Your task to perform on an android device: turn off smart reply in the gmail app Image 0: 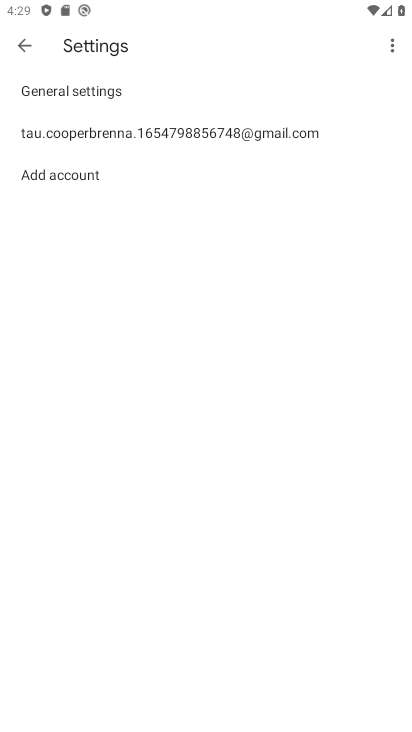
Step 0: press home button
Your task to perform on an android device: turn off smart reply in the gmail app Image 1: 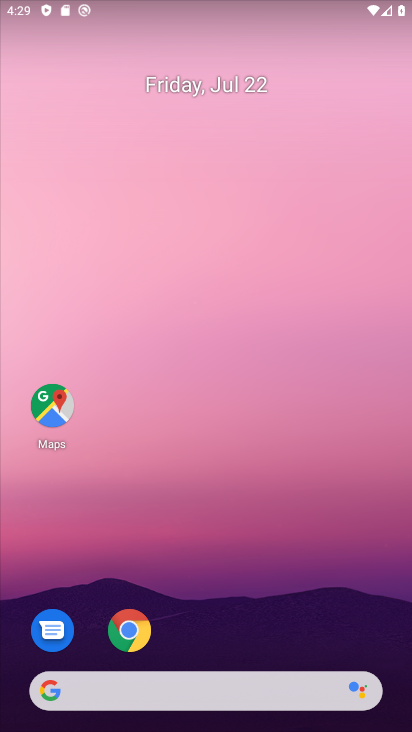
Step 1: drag from (167, 623) to (195, 120)
Your task to perform on an android device: turn off smart reply in the gmail app Image 2: 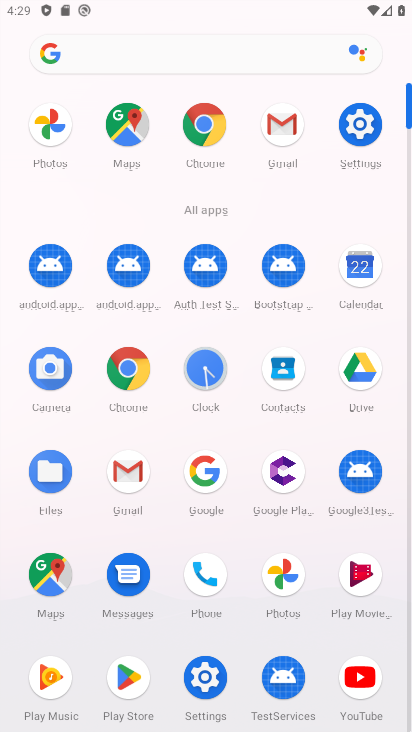
Step 2: click (269, 130)
Your task to perform on an android device: turn off smart reply in the gmail app Image 3: 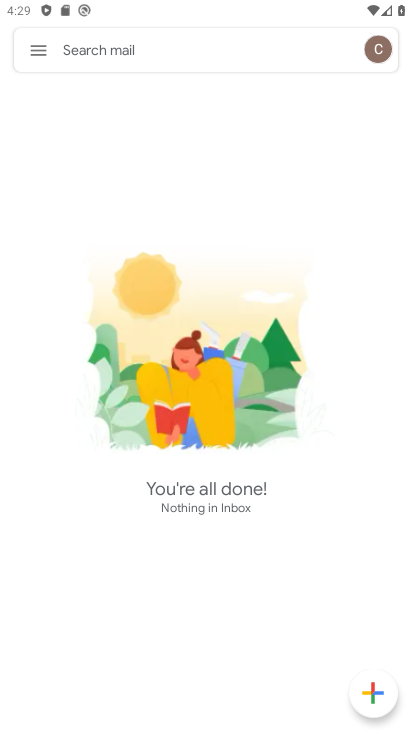
Step 3: press home button
Your task to perform on an android device: turn off smart reply in the gmail app Image 4: 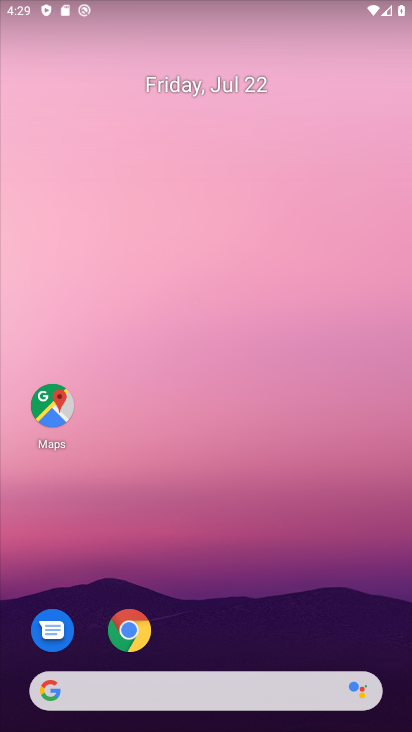
Step 4: drag from (187, 591) to (25, 28)
Your task to perform on an android device: turn off smart reply in the gmail app Image 5: 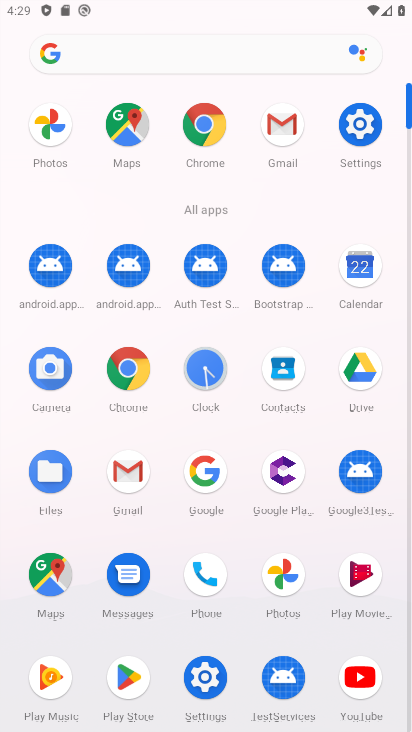
Step 5: click (277, 122)
Your task to perform on an android device: turn off smart reply in the gmail app Image 6: 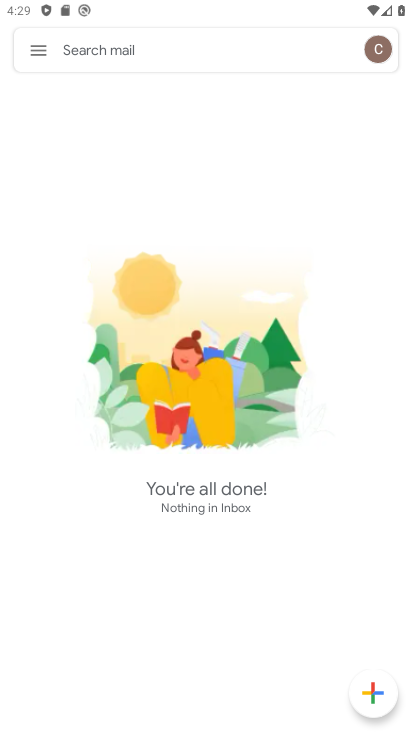
Step 6: click (33, 45)
Your task to perform on an android device: turn off smart reply in the gmail app Image 7: 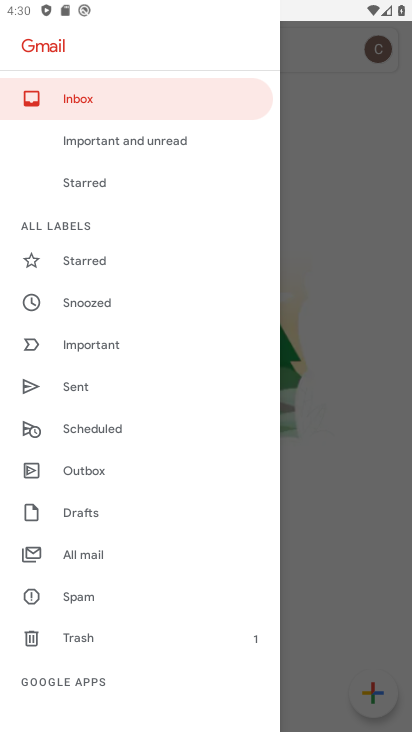
Step 7: drag from (79, 640) to (52, 431)
Your task to perform on an android device: turn off smart reply in the gmail app Image 8: 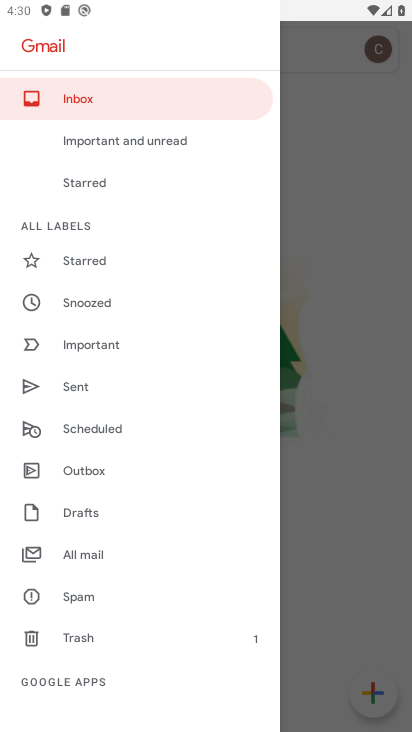
Step 8: drag from (161, 614) to (161, 264)
Your task to perform on an android device: turn off smart reply in the gmail app Image 9: 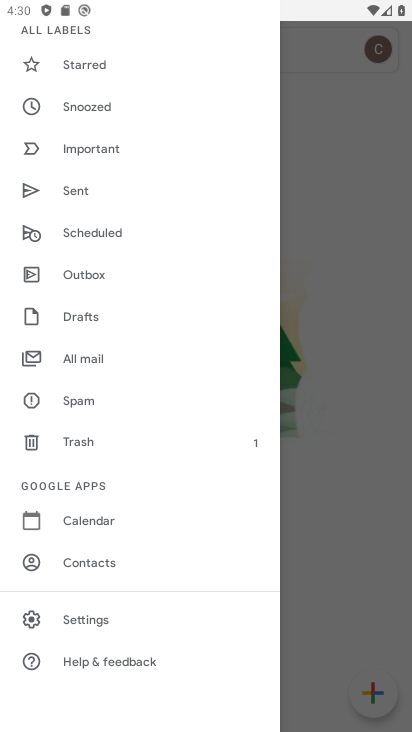
Step 9: click (90, 617)
Your task to perform on an android device: turn off smart reply in the gmail app Image 10: 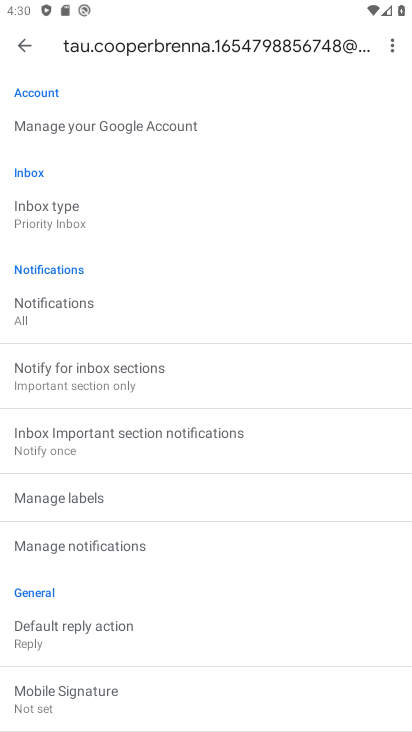
Step 10: drag from (234, 535) to (229, 178)
Your task to perform on an android device: turn off smart reply in the gmail app Image 11: 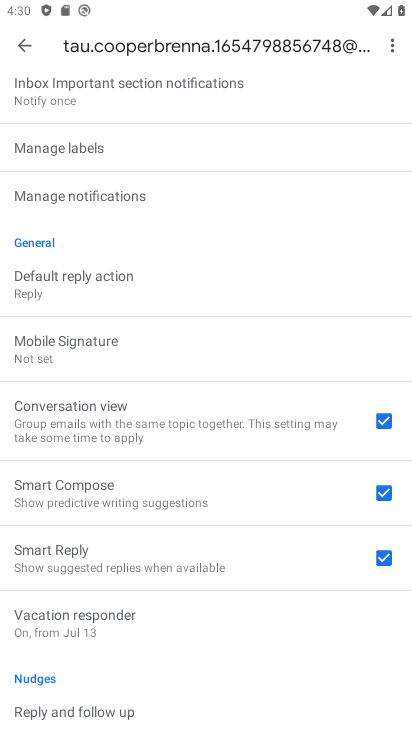
Step 11: click (383, 551)
Your task to perform on an android device: turn off smart reply in the gmail app Image 12: 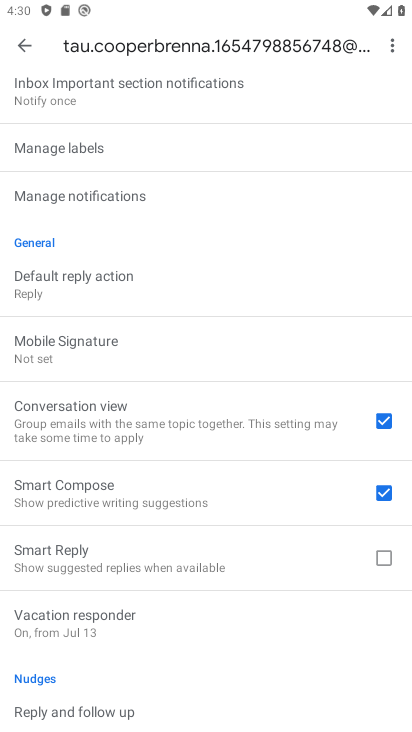
Step 12: task complete